Your task to perform on an android device: turn on wifi Image 0: 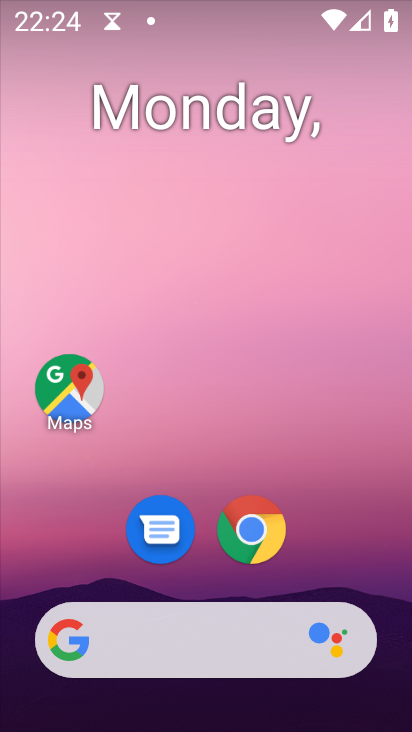
Step 0: drag from (340, 574) to (264, 189)
Your task to perform on an android device: turn on wifi Image 1: 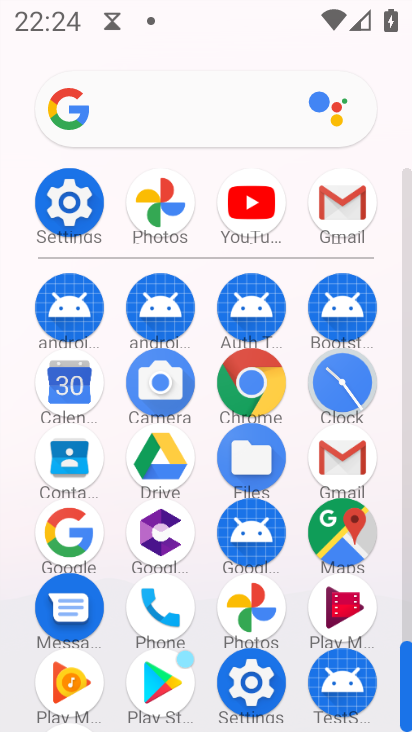
Step 1: click (71, 201)
Your task to perform on an android device: turn on wifi Image 2: 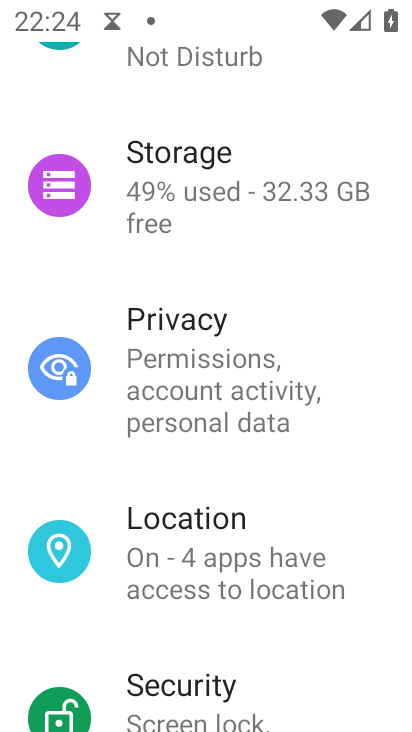
Step 2: drag from (209, 264) to (235, 419)
Your task to perform on an android device: turn on wifi Image 3: 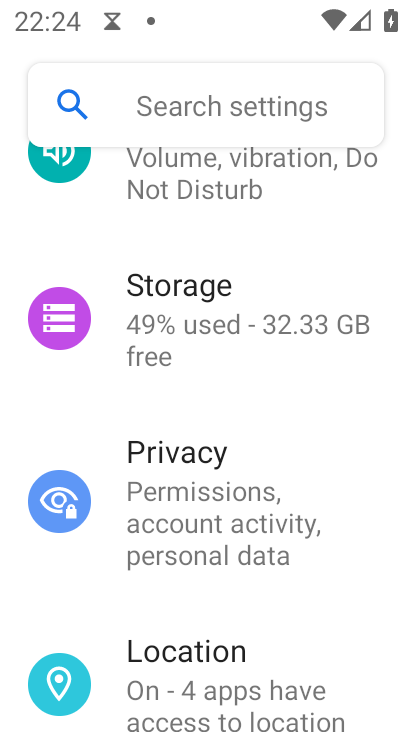
Step 3: drag from (237, 245) to (248, 355)
Your task to perform on an android device: turn on wifi Image 4: 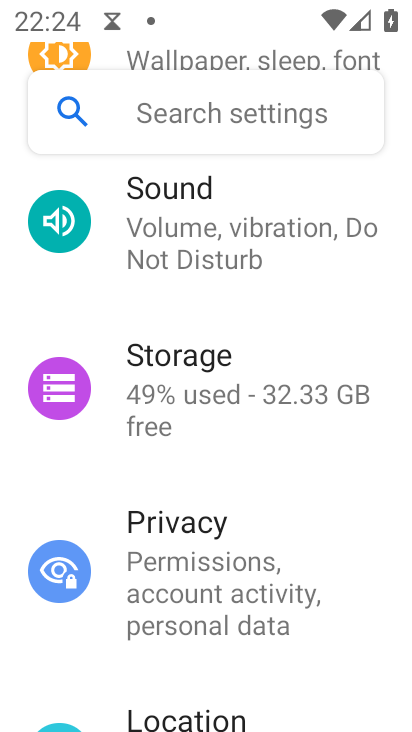
Step 4: drag from (284, 202) to (280, 342)
Your task to perform on an android device: turn on wifi Image 5: 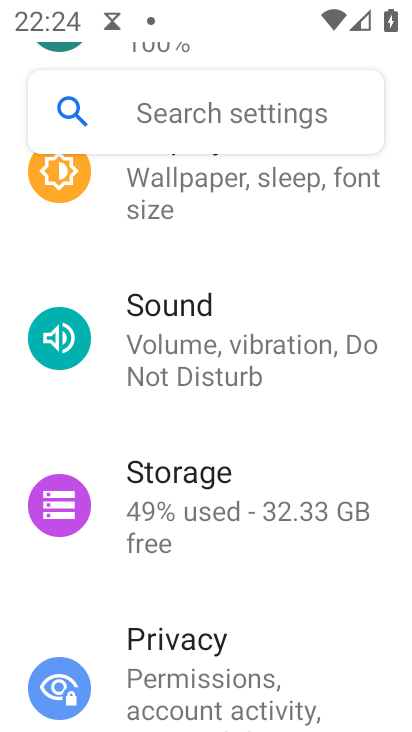
Step 5: drag from (252, 225) to (258, 308)
Your task to perform on an android device: turn on wifi Image 6: 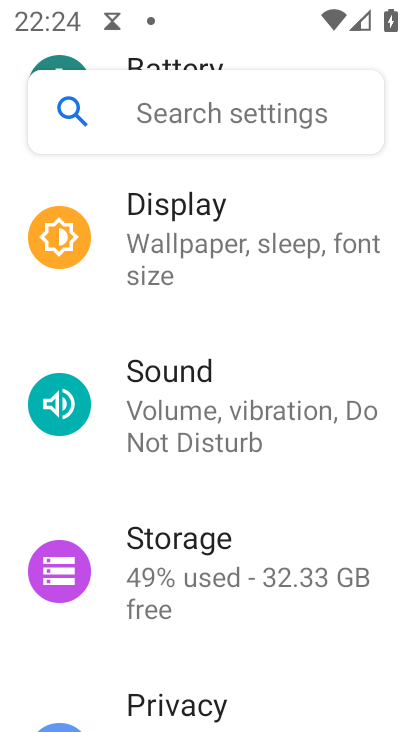
Step 6: drag from (260, 198) to (248, 375)
Your task to perform on an android device: turn on wifi Image 7: 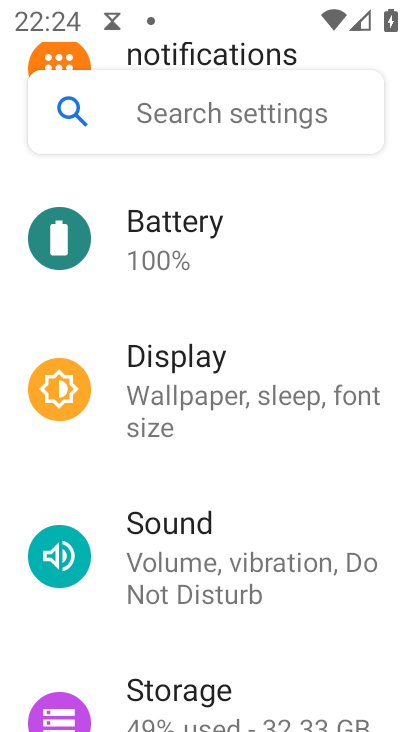
Step 7: drag from (251, 219) to (273, 367)
Your task to perform on an android device: turn on wifi Image 8: 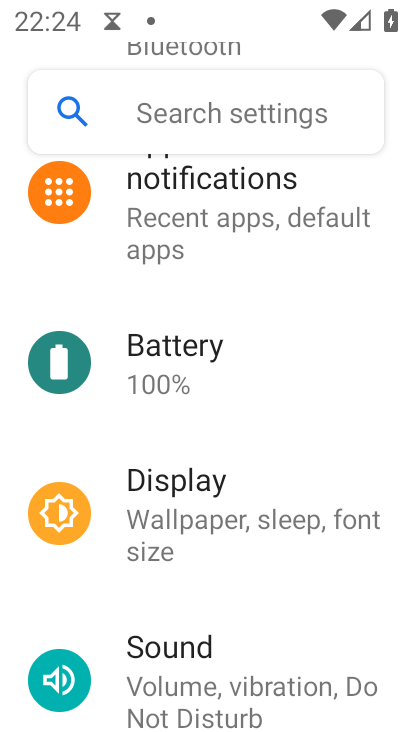
Step 8: drag from (238, 259) to (255, 423)
Your task to perform on an android device: turn on wifi Image 9: 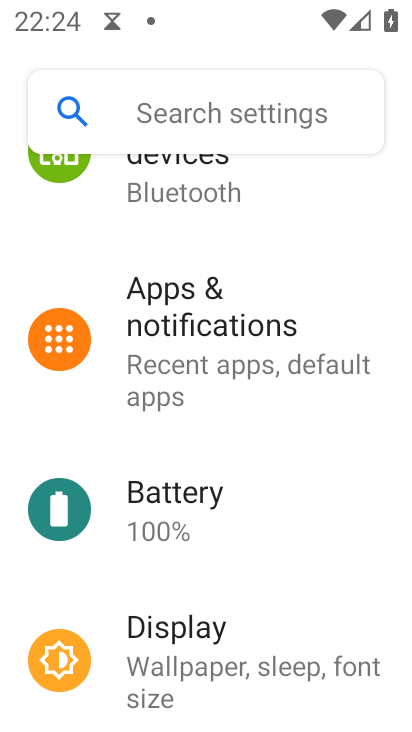
Step 9: drag from (244, 225) to (260, 364)
Your task to perform on an android device: turn on wifi Image 10: 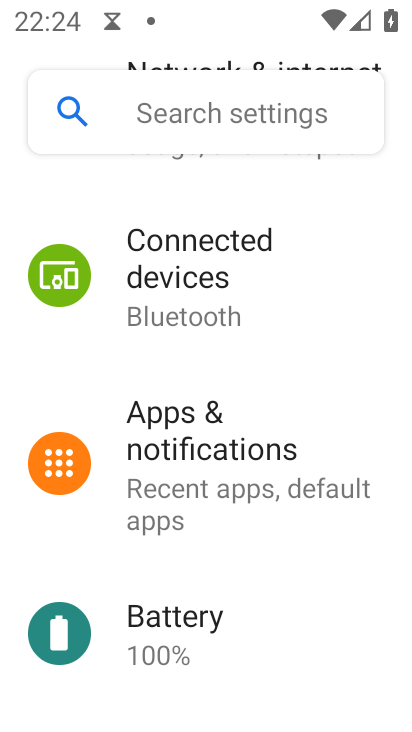
Step 10: drag from (252, 203) to (282, 394)
Your task to perform on an android device: turn on wifi Image 11: 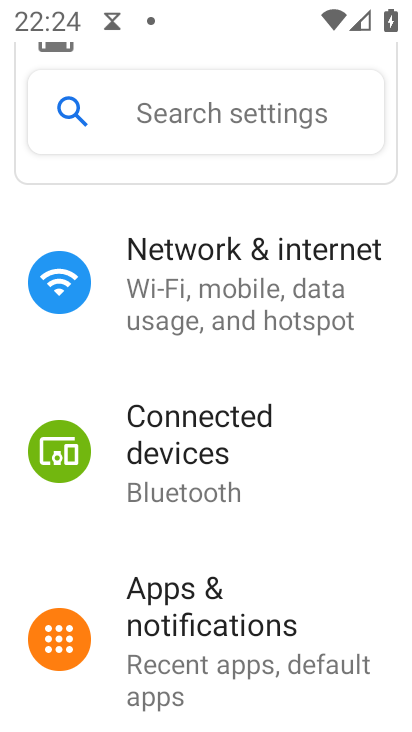
Step 11: click (238, 240)
Your task to perform on an android device: turn on wifi Image 12: 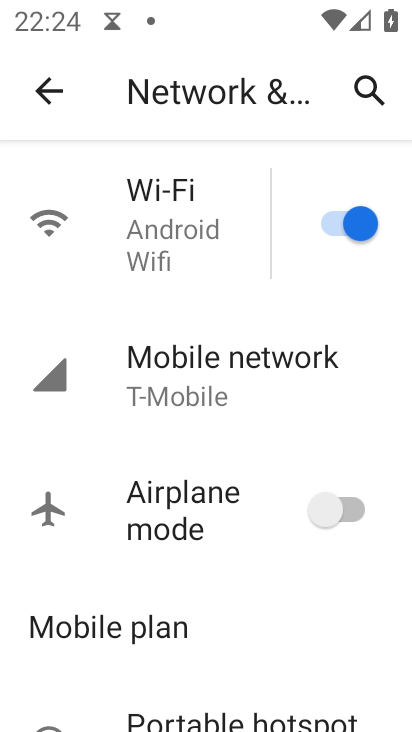
Step 12: task complete